Your task to perform on an android device: Open Youtube and go to "Your channel" Image 0: 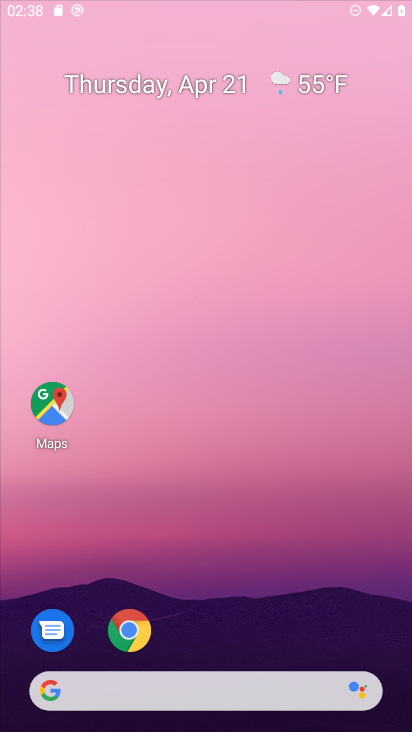
Step 0: drag from (289, 614) to (305, 1)
Your task to perform on an android device: Open Youtube and go to "Your channel" Image 1: 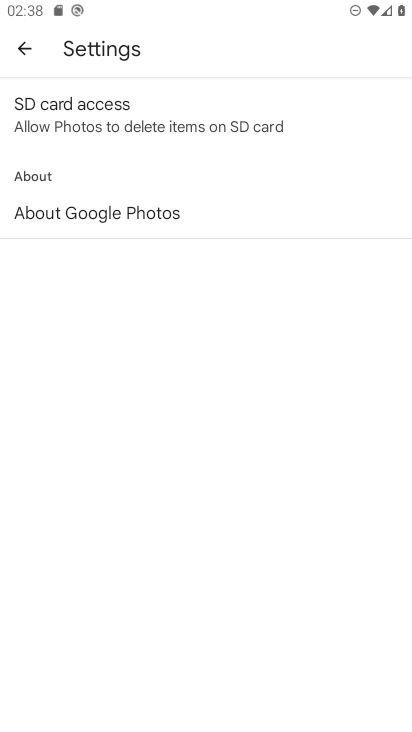
Step 1: press home button
Your task to perform on an android device: Open Youtube and go to "Your channel" Image 2: 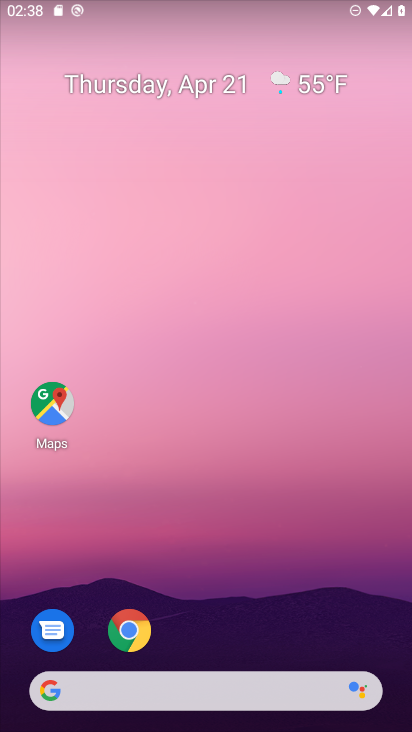
Step 2: drag from (262, 633) to (279, 189)
Your task to perform on an android device: Open Youtube and go to "Your channel" Image 3: 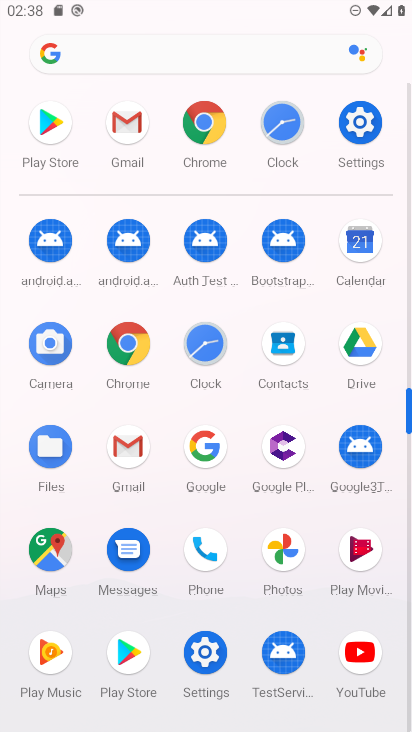
Step 3: click (356, 674)
Your task to perform on an android device: Open Youtube and go to "Your channel" Image 4: 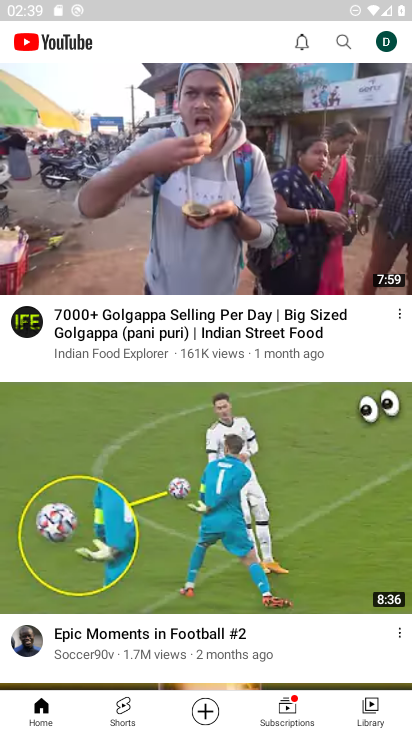
Step 4: click (382, 46)
Your task to perform on an android device: Open Youtube and go to "Your channel" Image 5: 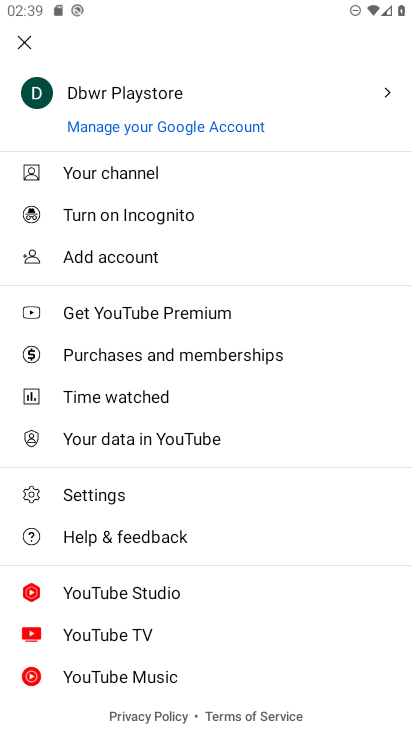
Step 5: click (141, 167)
Your task to perform on an android device: Open Youtube and go to "Your channel" Image 6: 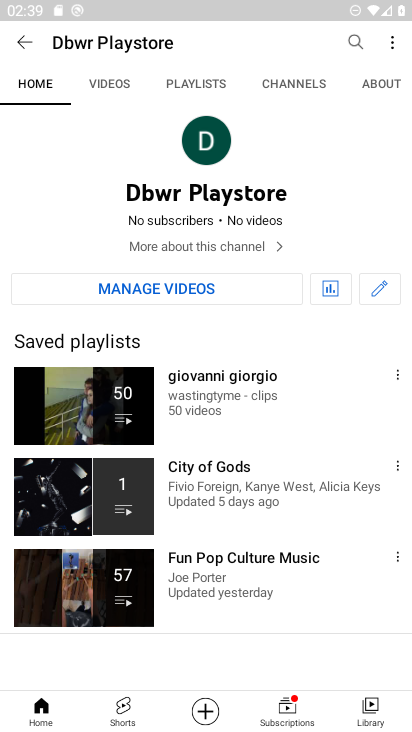
Step 6: task complete